Your task to perform on an android device: Go to accessibility settings Image 0: 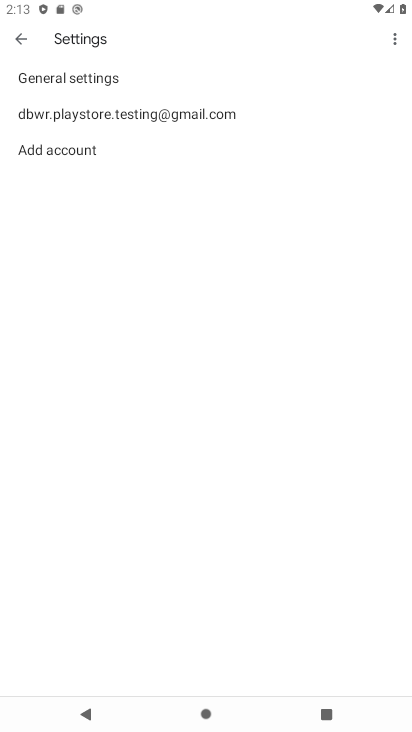
Step 0: press home button
Your task to perform on an android device: Go to accessibility settings Image 1: 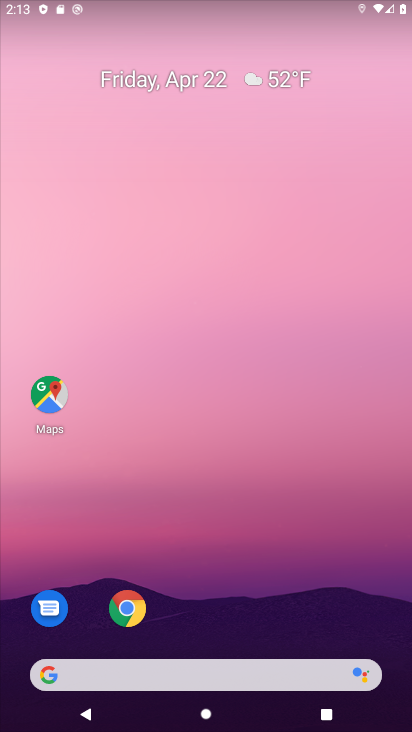
Step 1: drag from (230, 586) to (217, 158)
Your task to perform on an android device: Go to accessibility settings Image 2: 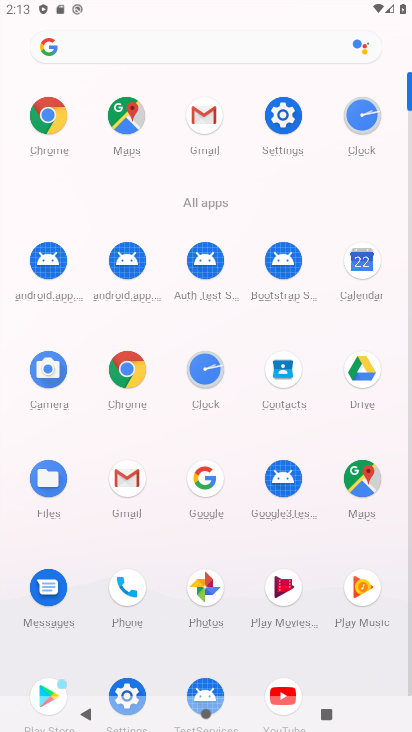
Step 2: click (286, 123)
Your task to perform on an android device: Go to accessibility settings Image 3: 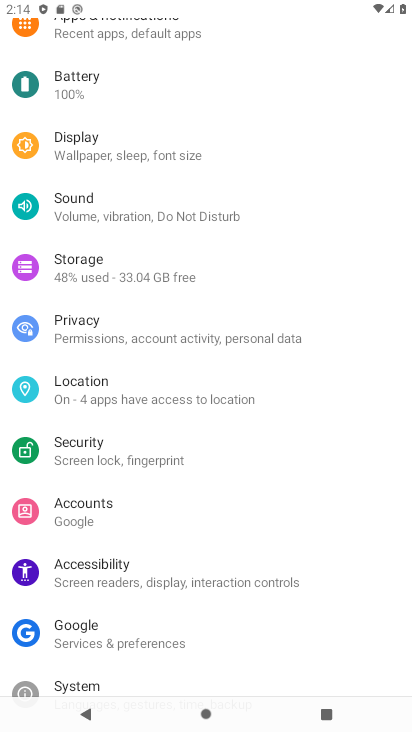
Step 3: click (188, 582)
Your task to perform on an android device: Go to accessibility settings Image 4: 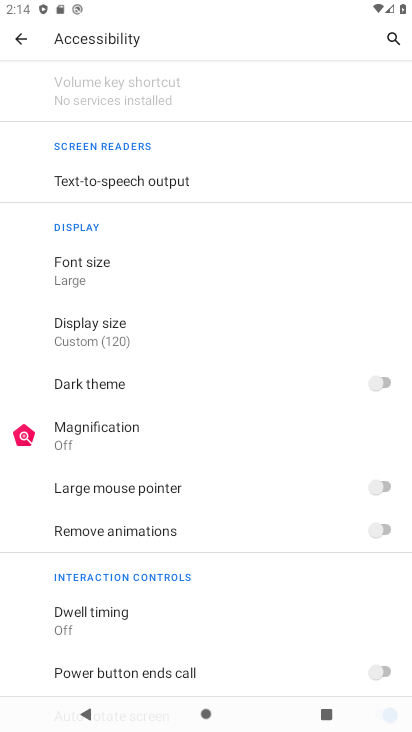
Step 4: task complete